Your task to perform on an android device: Go to calendar. Show me events next week Image 0: 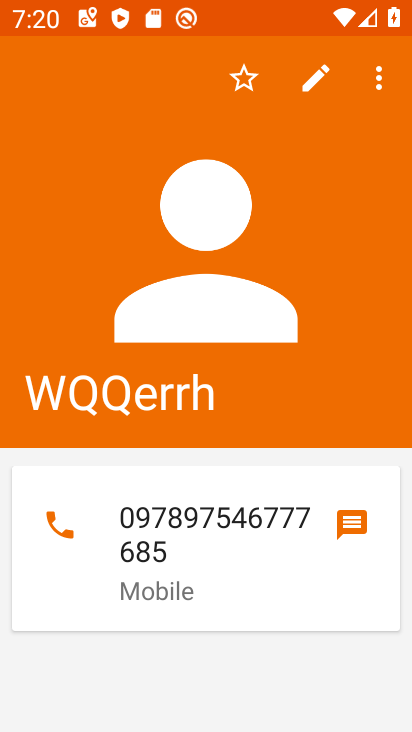
Step 0: press home button
Your task to perform on an android device: Go to calendar. Show me events next week Image 1: 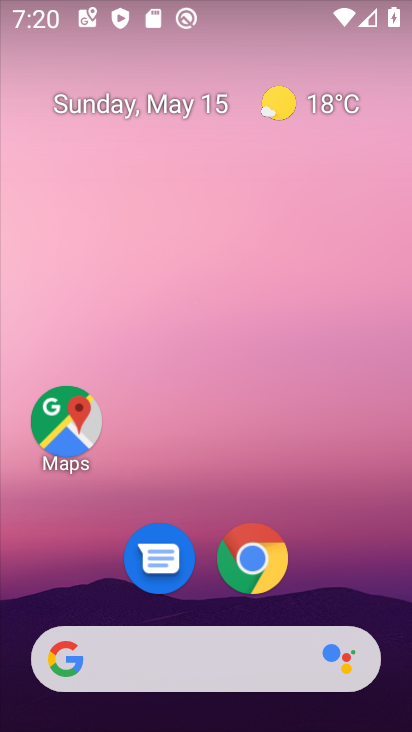
Step 1: drag from (321, 540) to (225, 24)
Your task to perform on an android device: Go to calendar. Show me events next week Image 2: 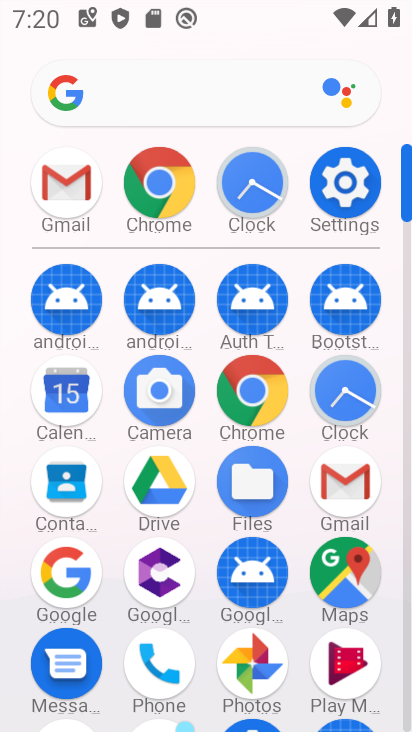
Step 2: click (54, 394)
Your task to perform on an android device: Go to calendar. Show me events next week Image 3: 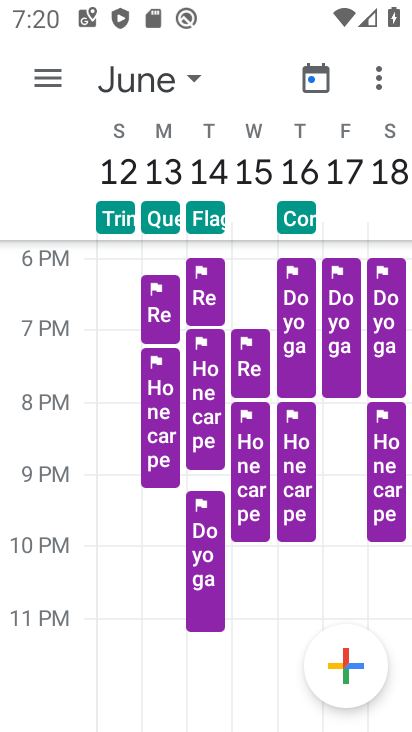
Step 3: click (192, 75)
Your task to perform on an android device: Go to calendar. Show me events next week Image 4: 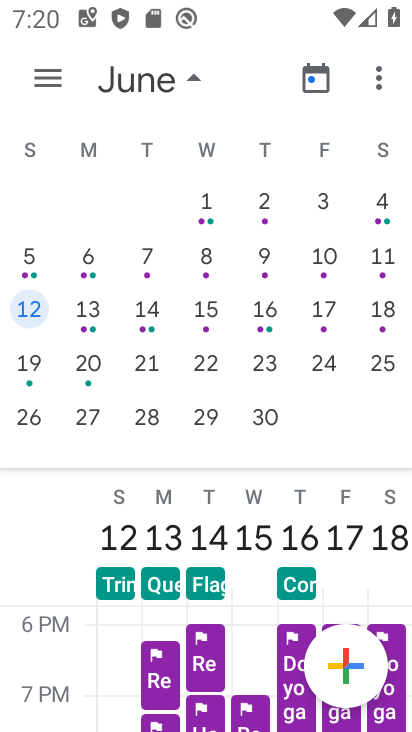
Step 4: drag from (34, 266) to (404, 278)
Your task to perform on an android device: Go to calendar. Show me events next week Image 5: 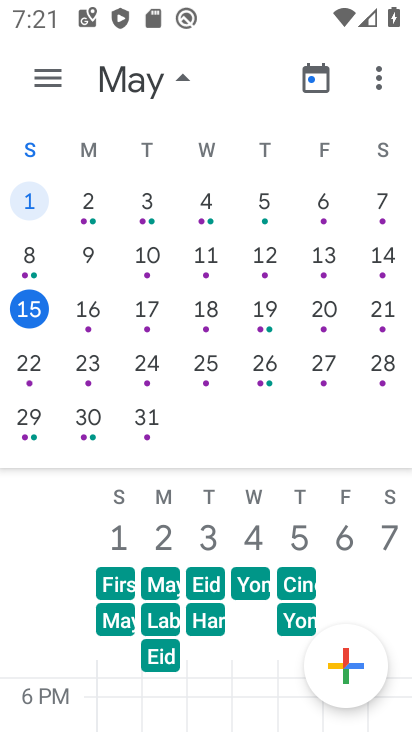
Step 5: click (83, 361)
Your task to perform on an android device: Go to calendar. Show me events next week Image 6: 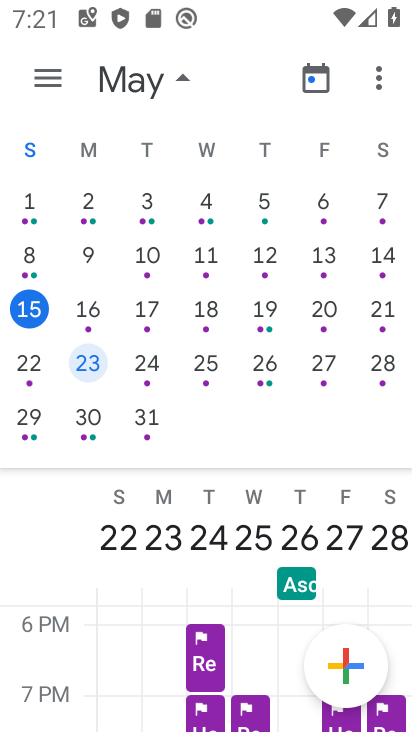
Step 6: task complete